Your task to perform on an android device: Clear the shopping cart on newegg.com. Image 0: 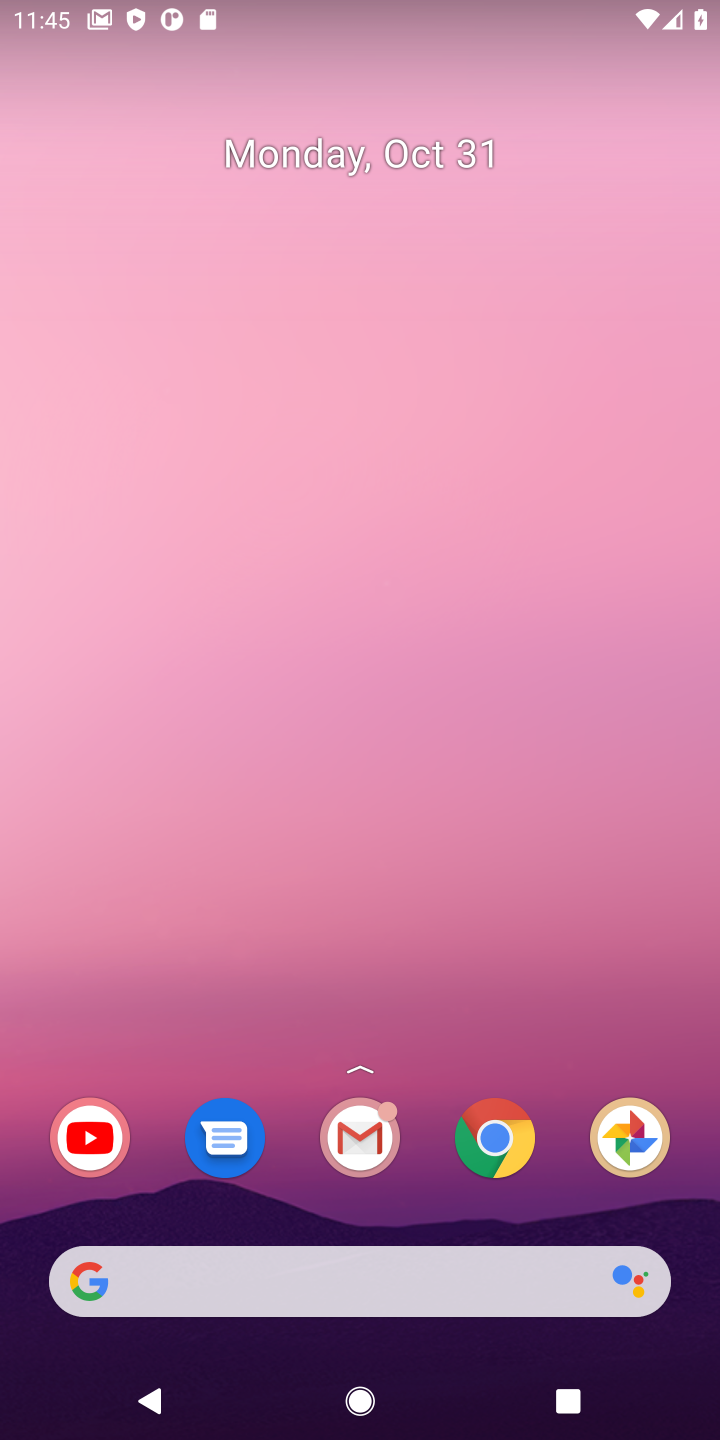
Step 0: click (501, 1137)
Your task to perform on an android device: Clear the shopping cart on newegg.com. Image 1: 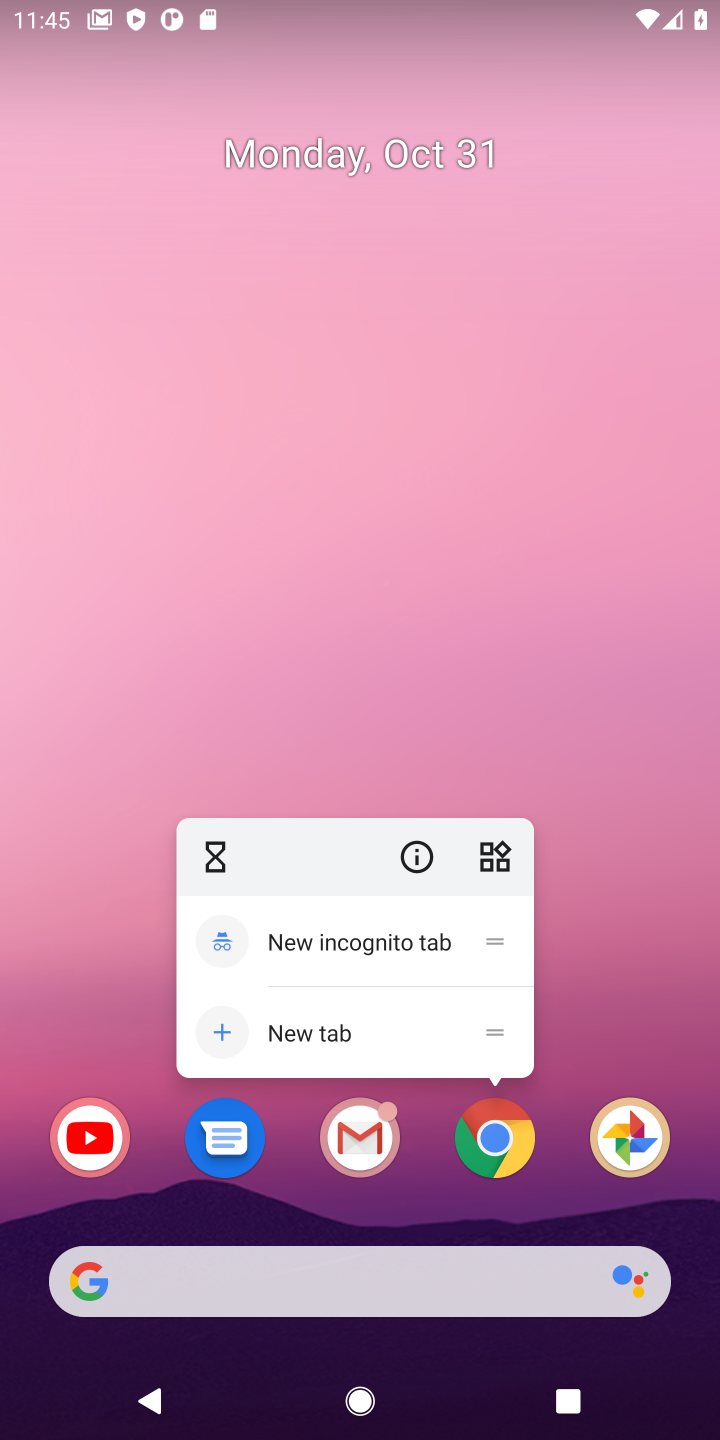
Step 1: click (509, 1153)
Your task to perform on an android device: Clear the shopping cart on newegg.com. Image 2: 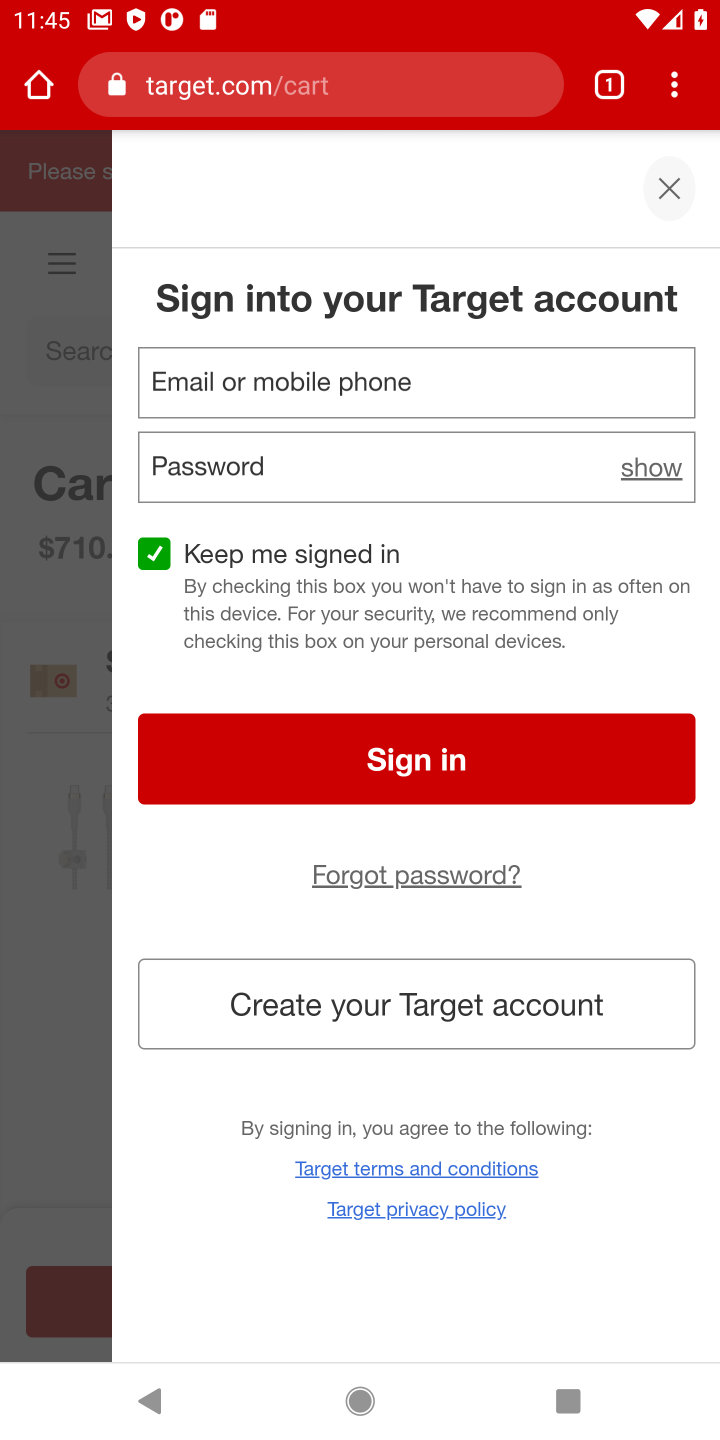
Step 2: click (385, 83)
Your task to perform on an android device: Clear the shopping cart on newegg.com. Image 3: 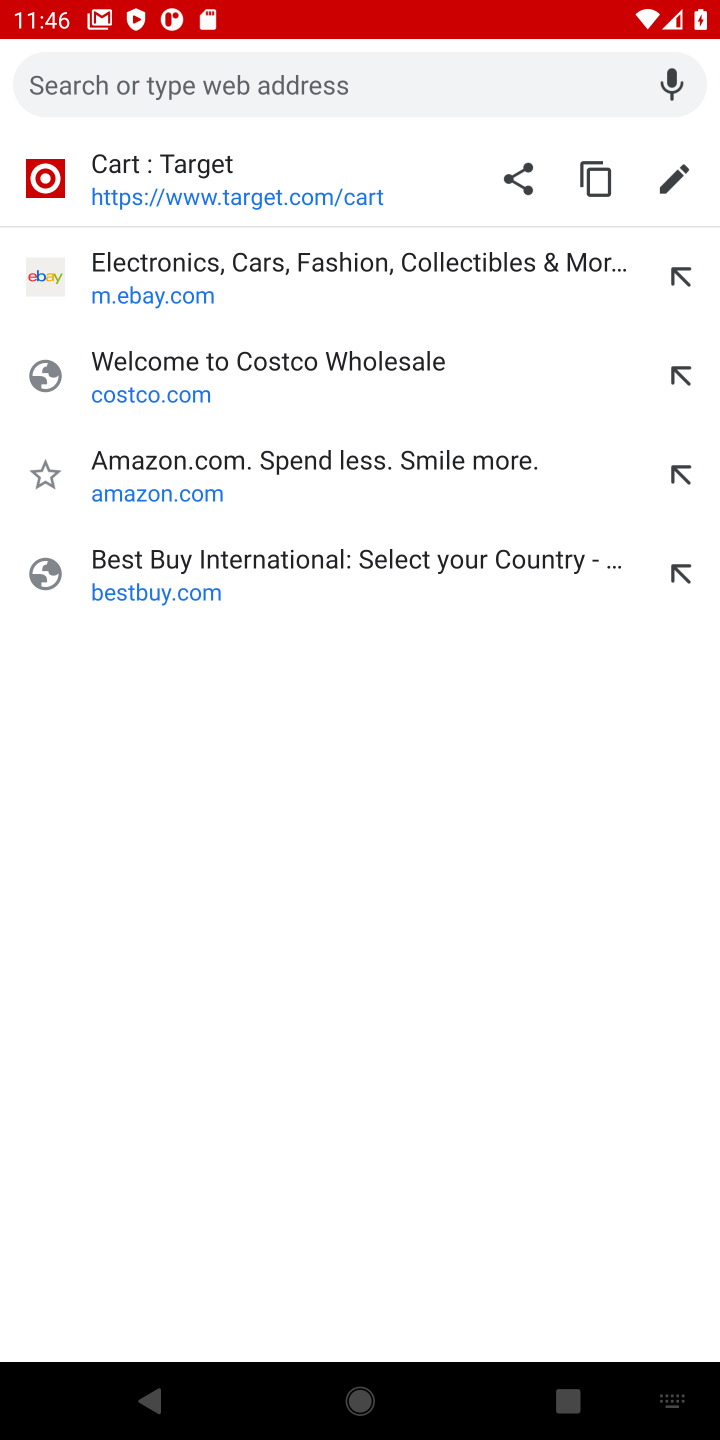
Step 3: click (188, 95)
Your task to perform on an android device: Clear the shopping cart on newegg.com. Image 4: 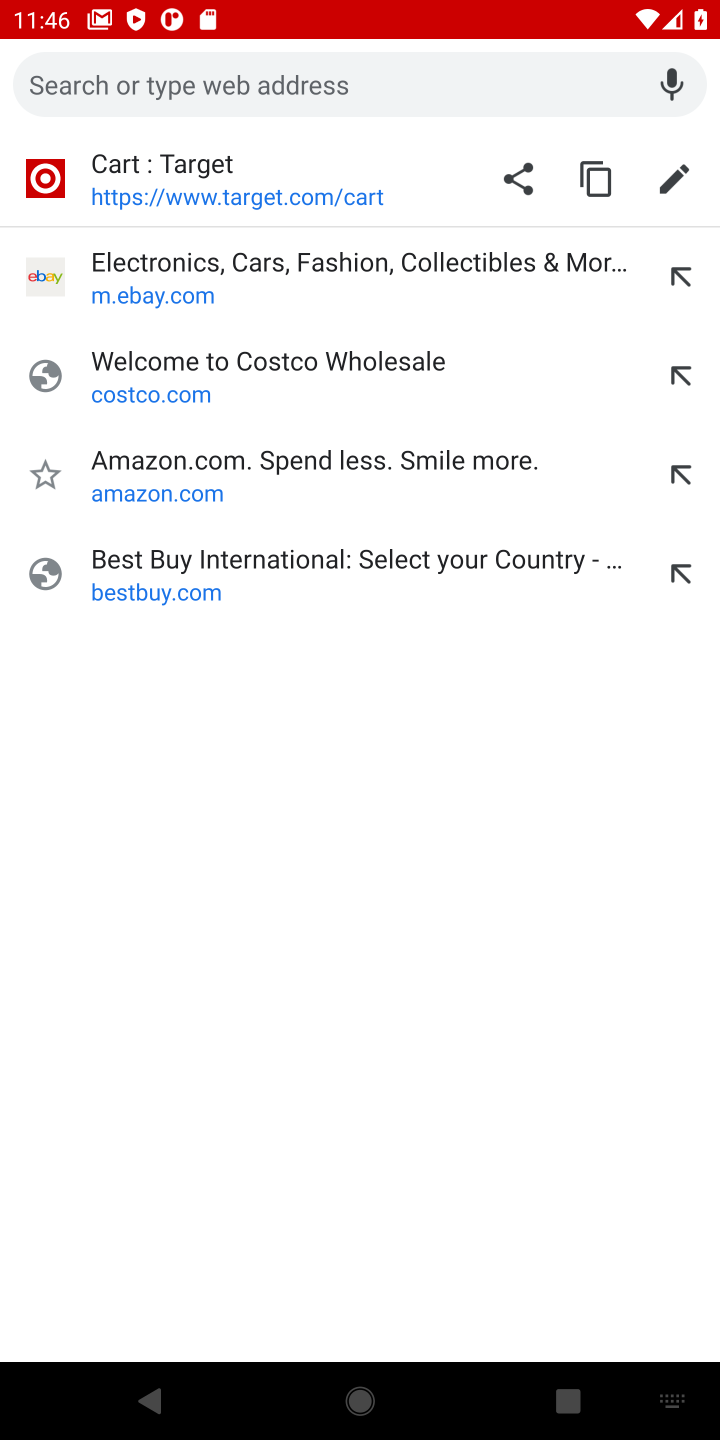
Step 4: type "newegg"
Your task to perform on an android device: Clear the shopping cart on newegg.com. Image 5: 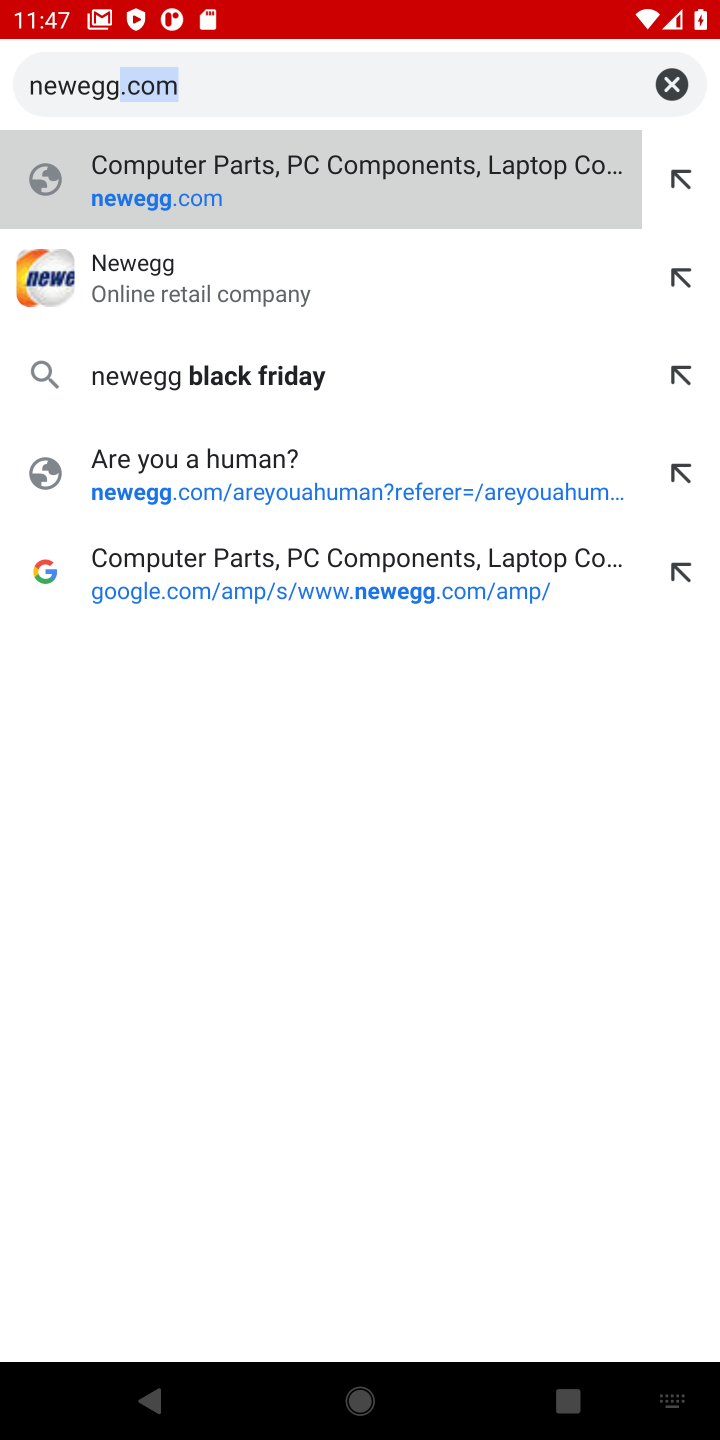
Step 5: click (147, 274)
Your task to perform on an android device: Clear the shopping cart on newegg.com. Image 6: 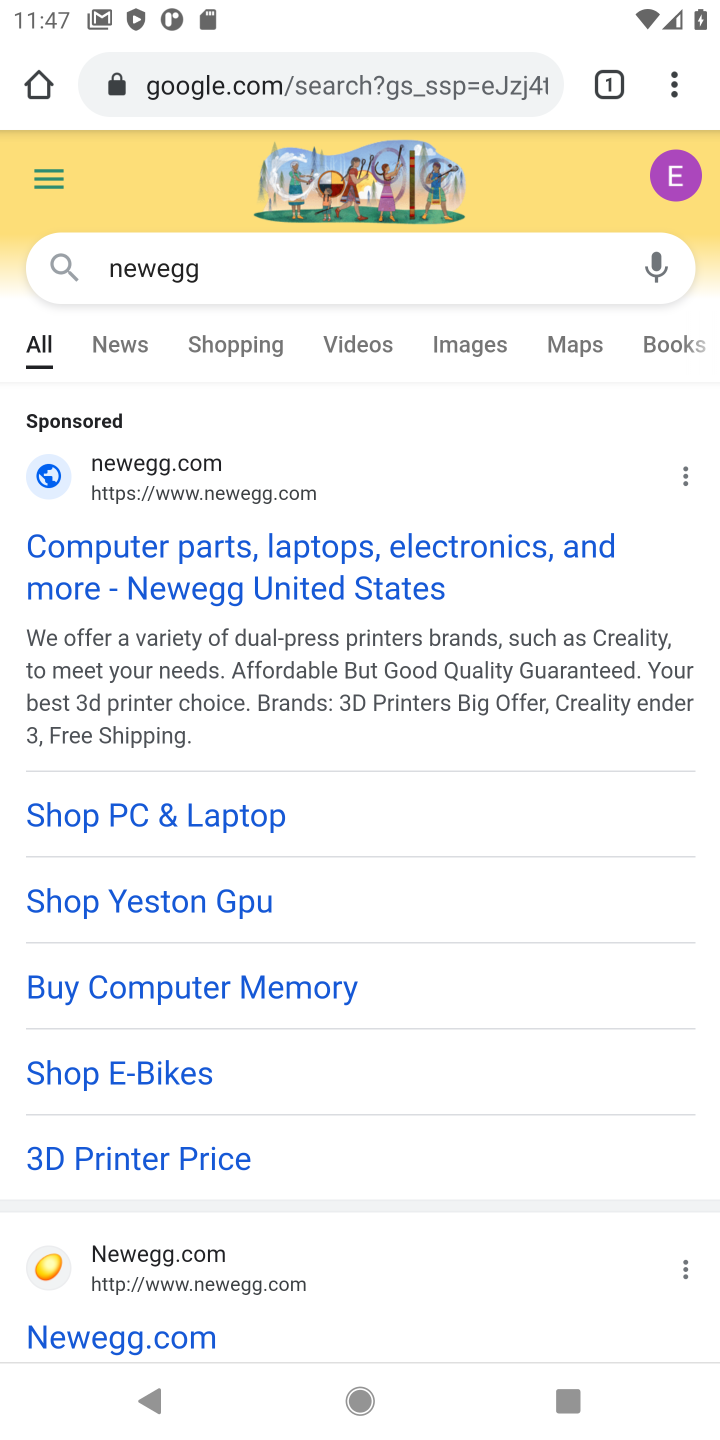
Step 6: click (125, 555)
Your task to perform on an android device: Clear the shopping cart on newegg.com. Image 7: 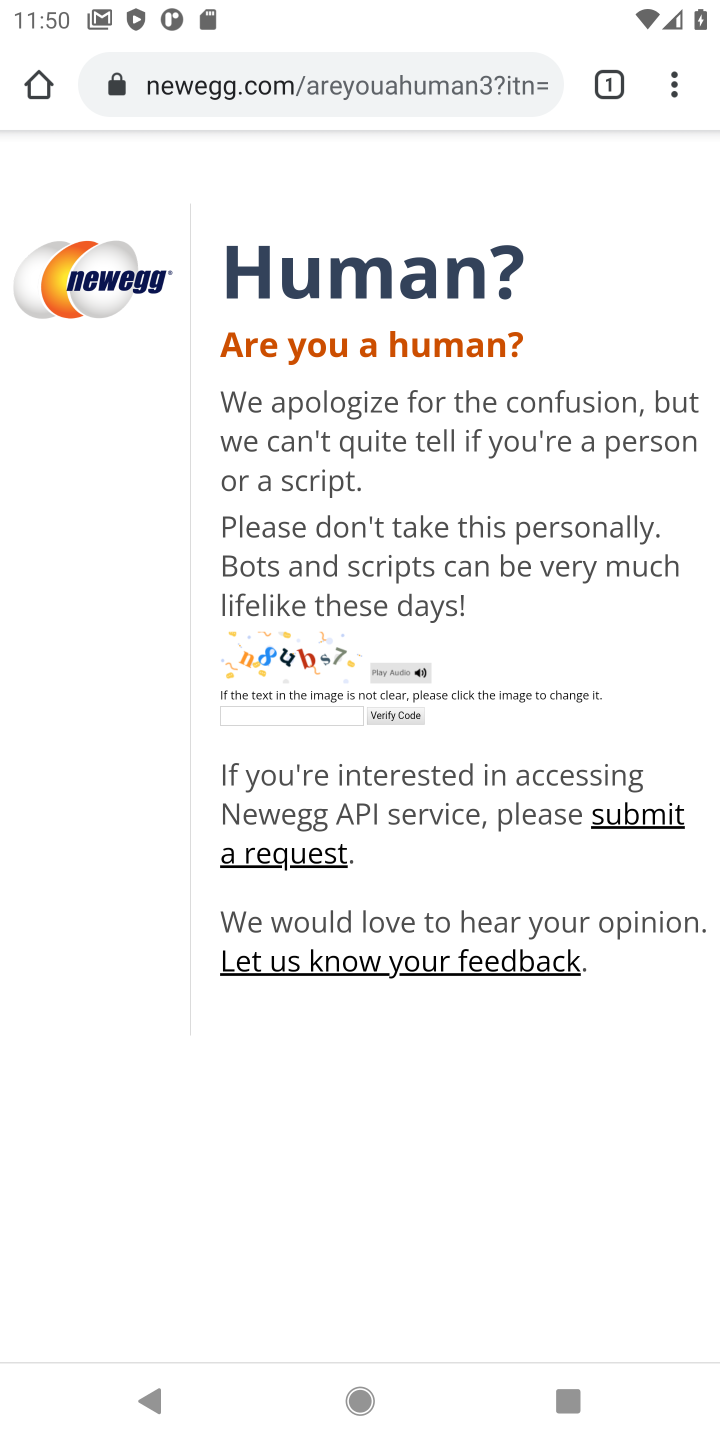
Step 7: task complete